Your task to perform on an android device: toggle data saver in the chrome app Image 0: 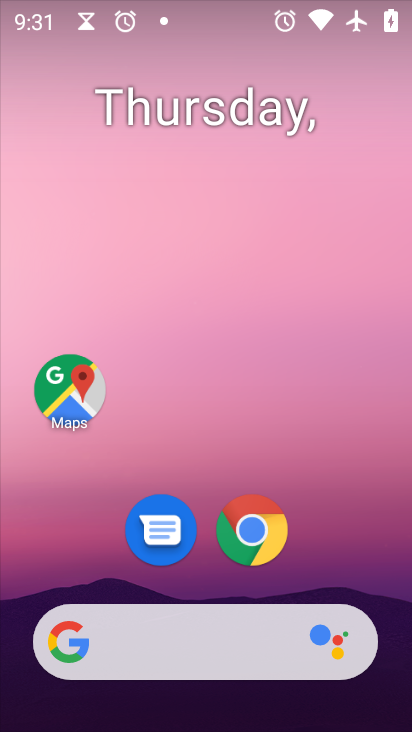
Step 0: drag from (326, 536) to (202, 34)
Your task to perform on an android device: toggle data saver in the chrome app Image 1: 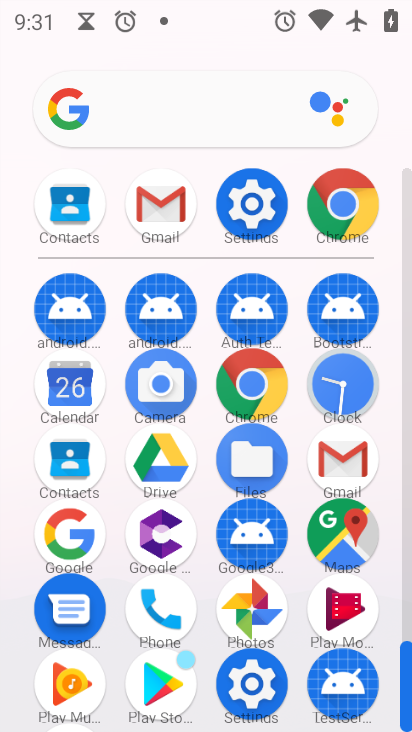
Step 1: drag from (8, 621) to (12, 318)
Your task to perform on an android device: toggle data saver in the chrome app Image 2: 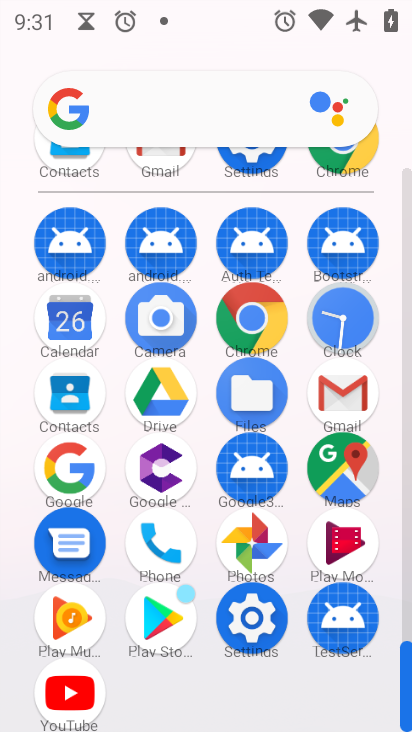
Step 2: click (251, 317)
Your task to perform on an android device: toggle data saver in the chrome app Image 3: 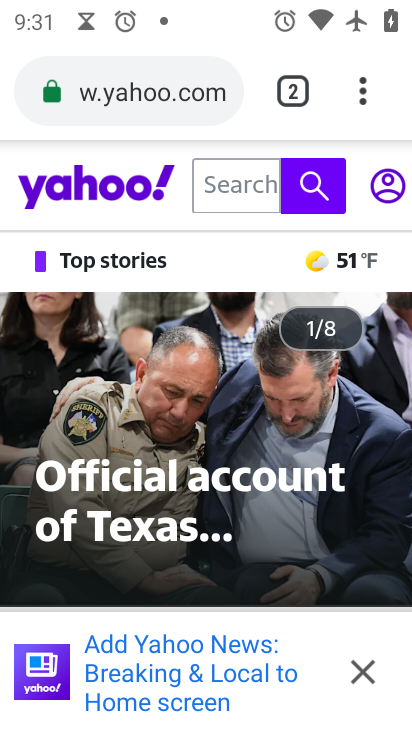
Step 3: drag from (358, 89) to (122, 552)
Your task to perform on an android device: toggle data saver in the chrome app Image 4: 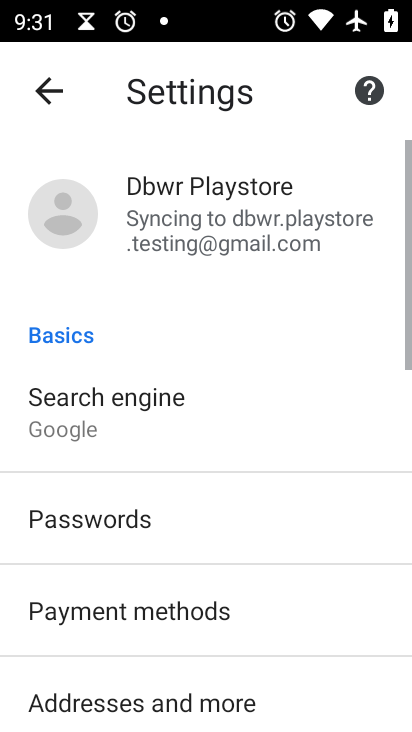
Step 4: drag from (274, 546) to (274, 174)
Your task to perform on an android device: toggle data saver in the chrome app Image 5: 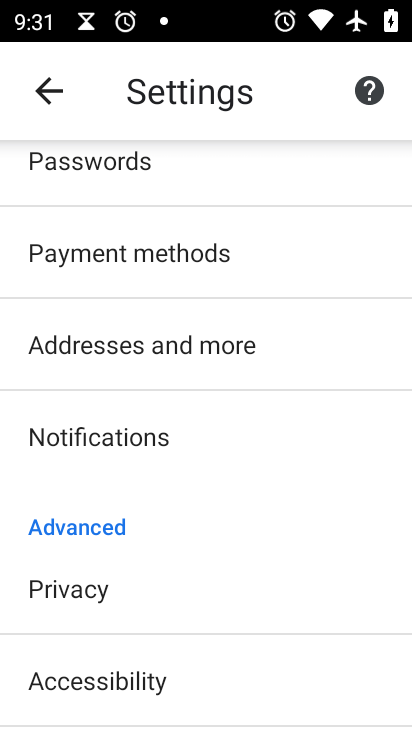
Step 5: drag from (209, 584) to (210, 192)
Your task to perform on an android device: toggle data saver in the chrome app Image 6: 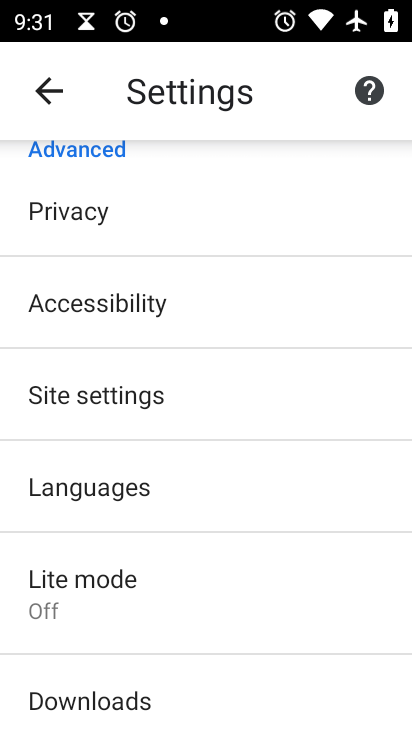
Step 6: click (182, 581)
Your task to perform on an android device: toggle data saver in the chrome app Image 7: 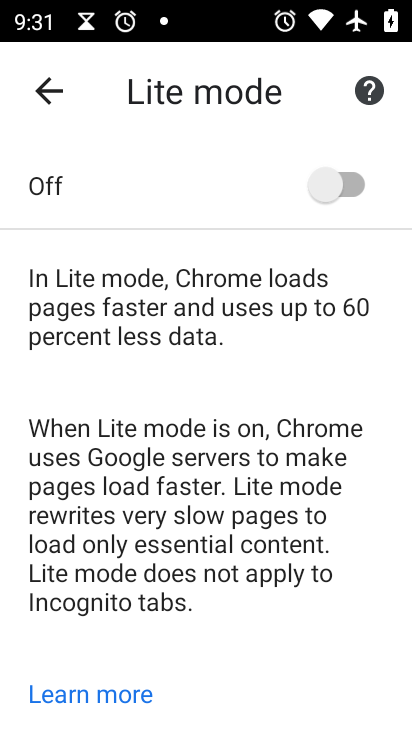
Step 7: drag from (240, 521) to (208, 162)
Your task to perform on an android device: toggle data saver in the chrome app Image 8: 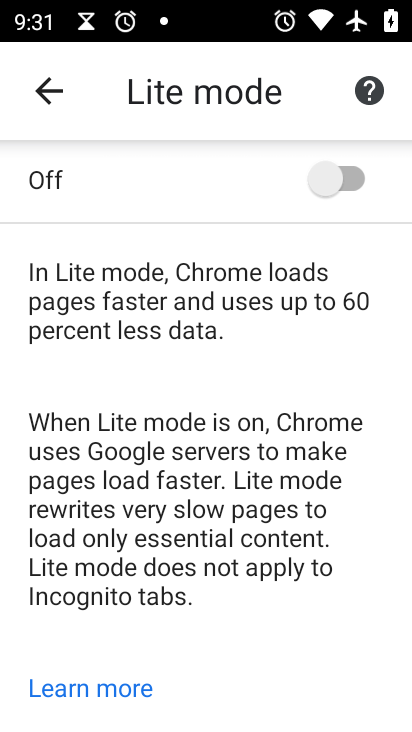
Step 8: drag from (208, 170) to (228, 476)
Your task to perform on an android device: toggle data saver in the chrome app Image 9: 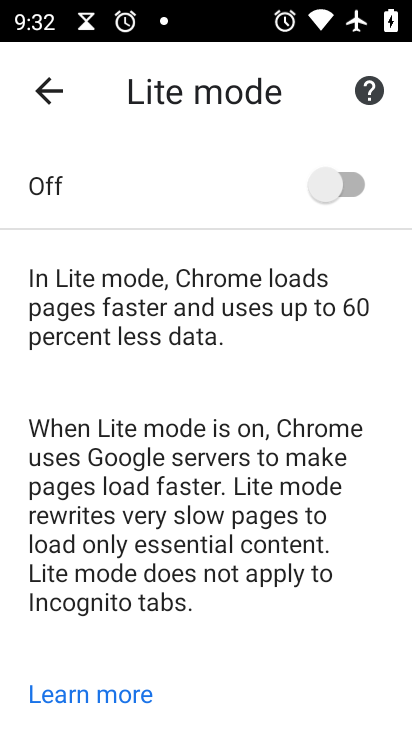
Step 9: click (344, 186)
Your task to perform on an android device: toggle data saver in the chrome app Image 10: 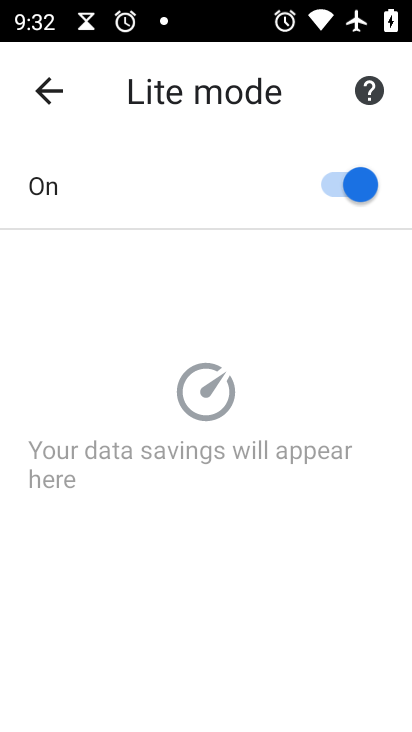
Step 10: task complete